Your task to perform on an android device: add a contact in the contacts app Image 0: 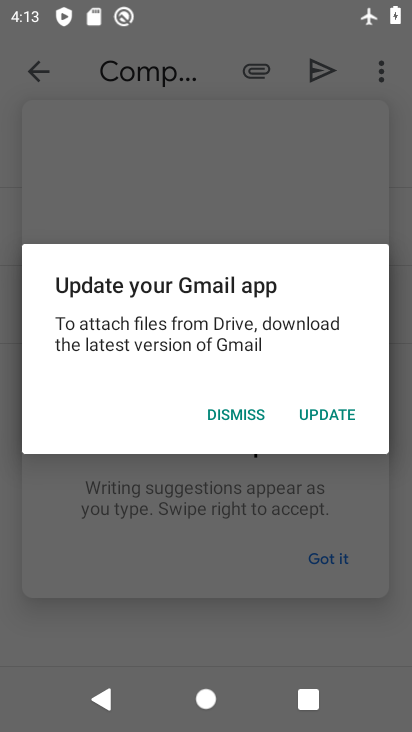
Step 0: click (223, 413)
Your task to perform on an android device: add a contact in the contacts app Image 1: 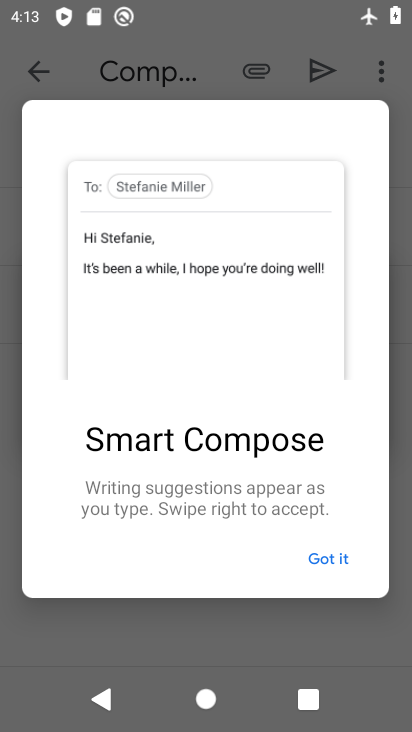
Step 1: click (313, 559)
Your task to perform on an android device: add a contact in the contacts app Image 2: 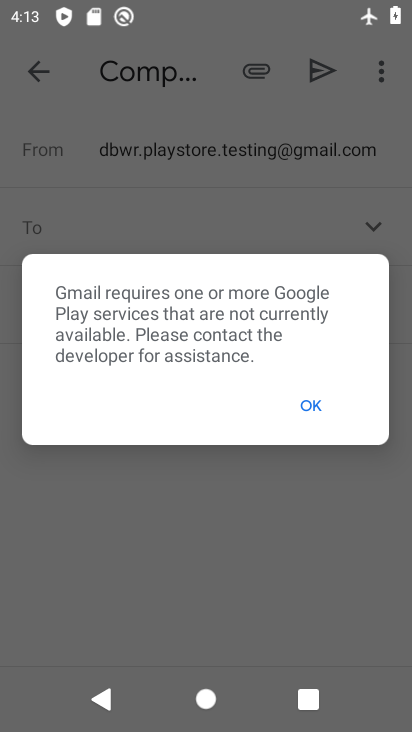
Step 2: press home button
Your task to perform on an android device: add a contact in the contacts app Image 3: 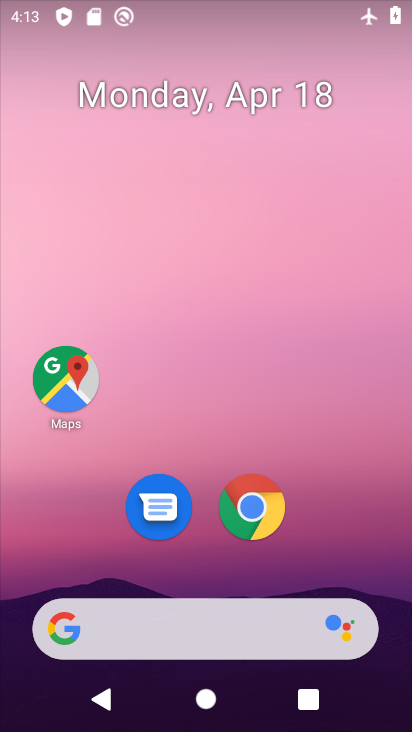
Step 3: drag from (320, 540) to (308, 69)
Your task to perform on an android device: add a contact in the contacts app Image 4: 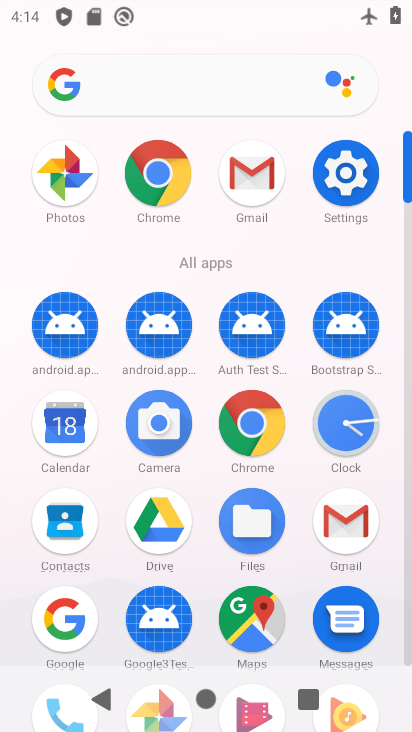
Step 4: drag from (293, 570) to (303, 254)
Your task to perform on an android device: add a contact in the contacts app Image 5: 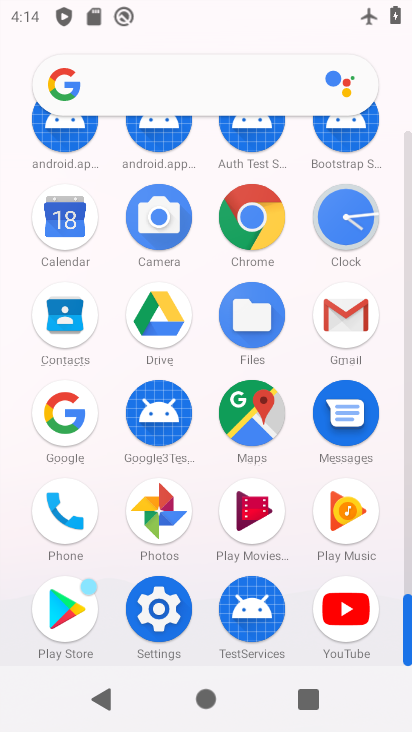
Step 5: click (77, 331)
Your task to perform on an android device: add a contact in the contacts app Image 6: 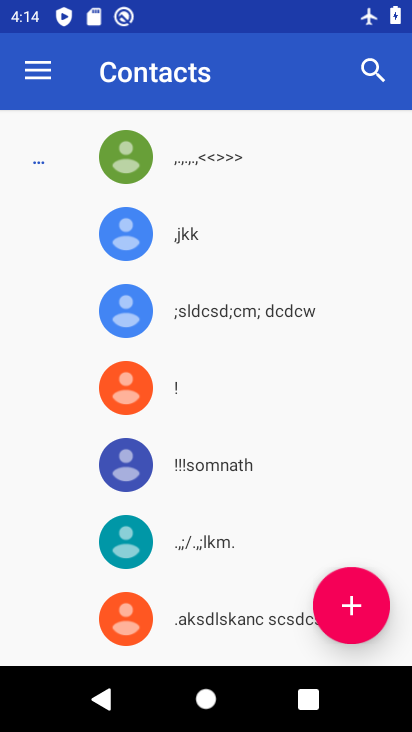
Step 6: drag from (281, 605) to (303, 153)
Your task to perform on an android device: add a contact in the contacts app Image 7: 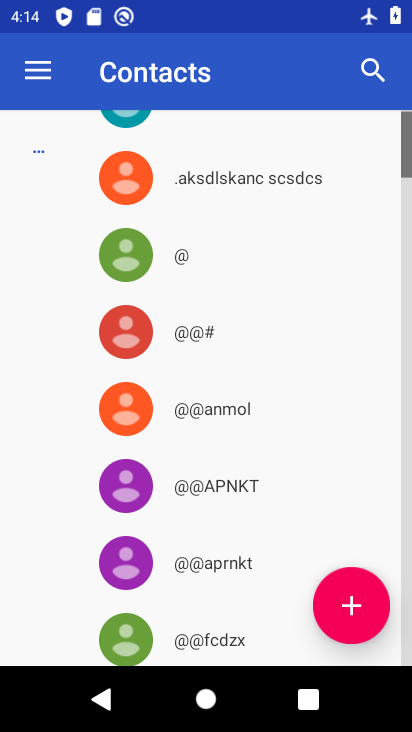
Step 7: click (351, 598)
Your task to perform on an android device: add a contact in the contacts app Image 8: 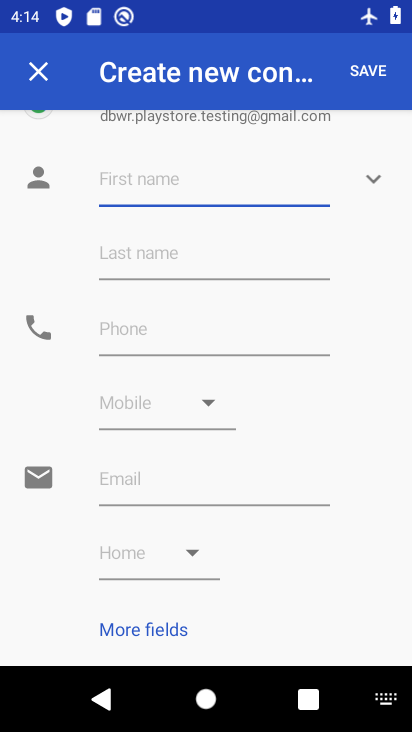
Step 8: type "sharu"
Your task to perform on an android device: add a contact in the contacts app Image 9: 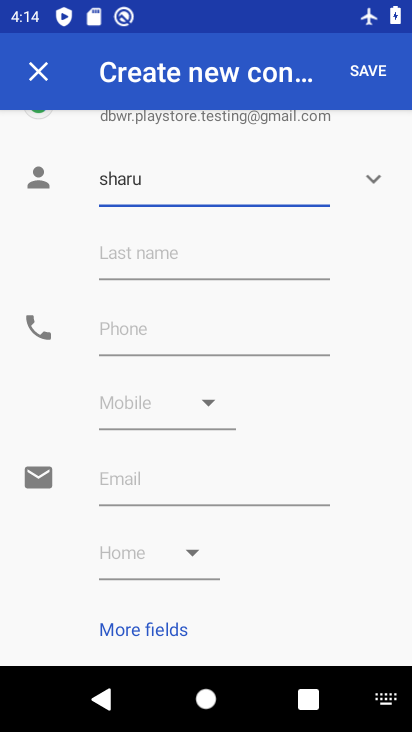
Step 9: click (181, 328)
Your task to perform on an android device: add a contact in the contacts app Image 10: 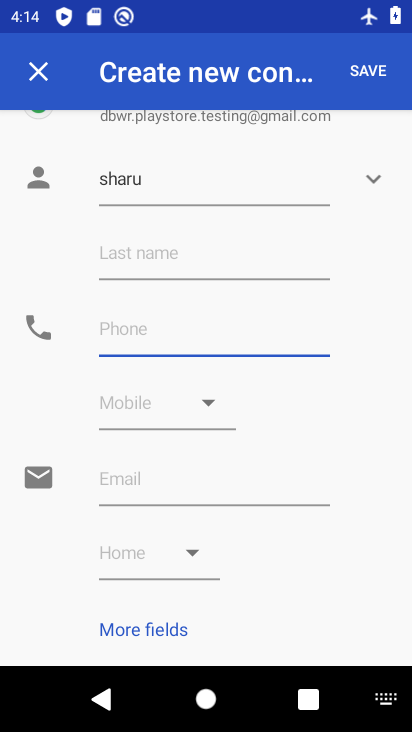
Step 10: click (142, 322)
Your task to perform on an android device: add a contact in the contacts app Image 11: 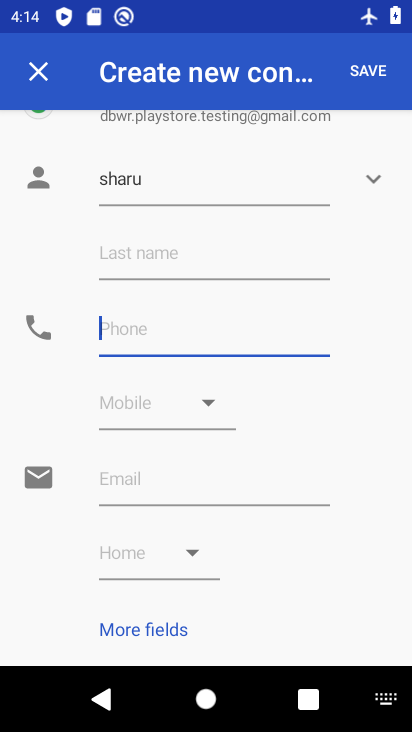
Step 11: type "8876557778"
Your task to perform on an android device: add a contact in the contacts app Image 12: 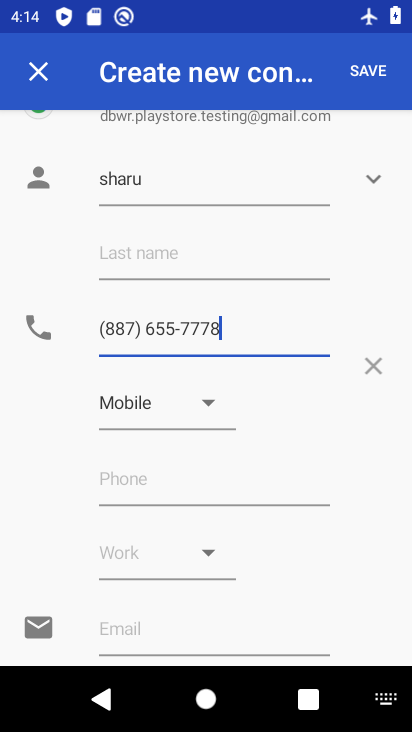
Step 12: click (369, 65)
Your task to perform on an android device: add a contact in the contacts app Image 13: 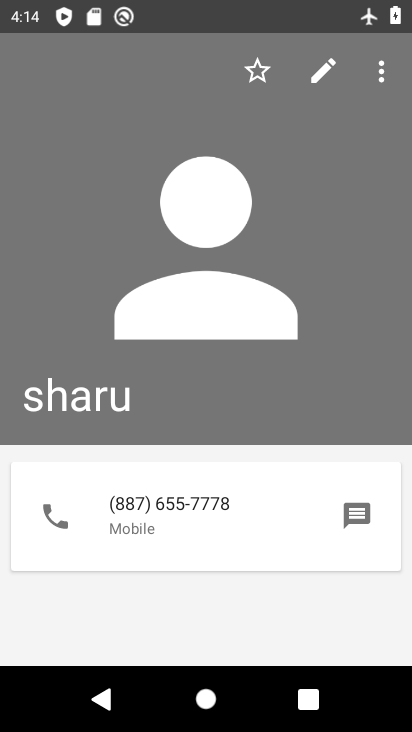
Step 13: task complete